Your task to perform on an android device: Open privacy settings Image 0: 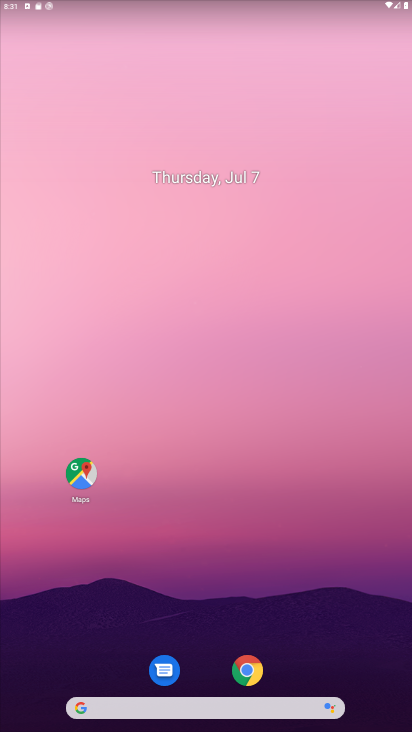
Step 0: drag from (23, 665) to (216, 222)
Your task to perform on an android device: Open privacy settings Image 1: 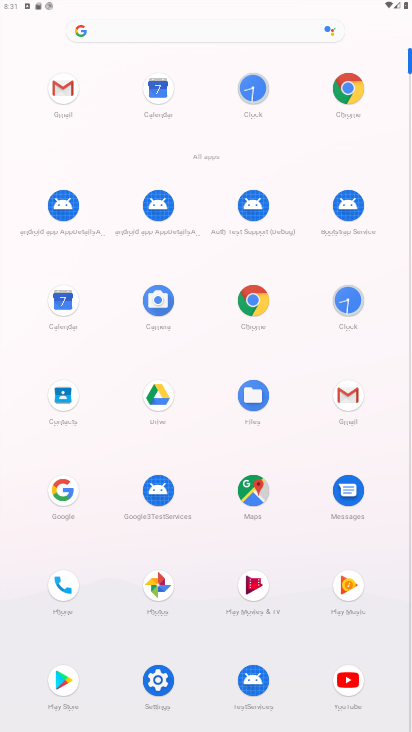
Step 1: click (161, 669)
Your task to perform on an android device: Open privacy settings Image 2: 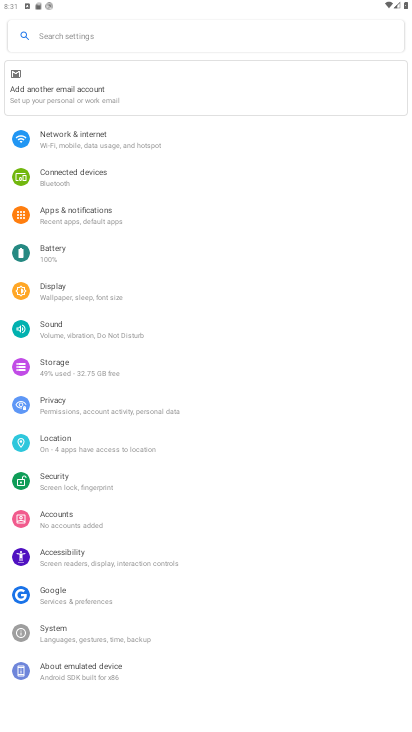
Step 2: task complete